Your task to perform on an android device: turn on data saver in the chrome app Image 0: 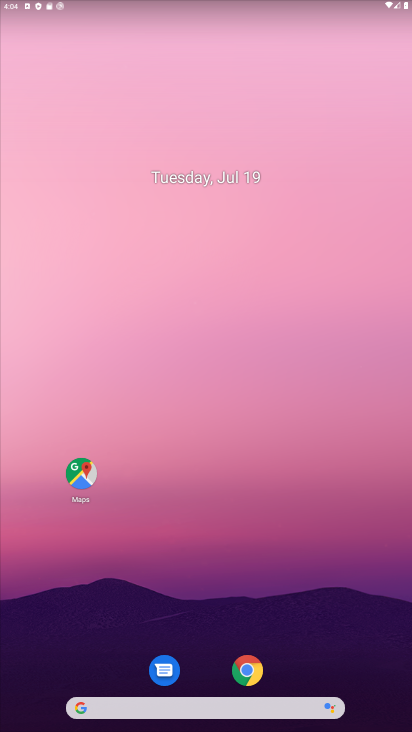
Step 0: drag from (274, 715) to (293, 125)
Your task to perform on an android device: turn on data saver in the chrome app Image 1: 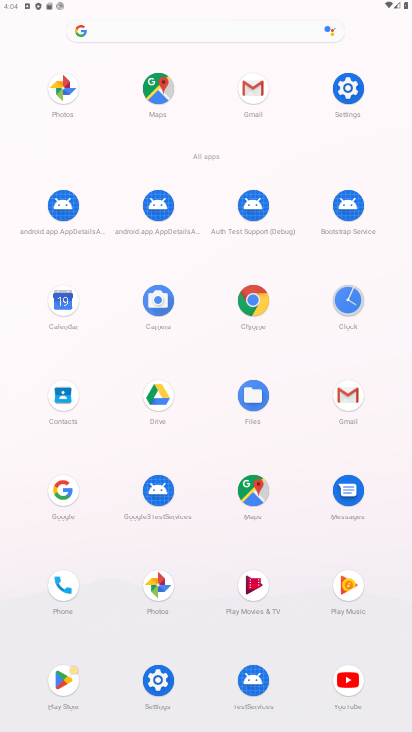
Step 1: click (262, 306)
Your task to perform on an android device: turn on data saver in the chrome app Image 2: 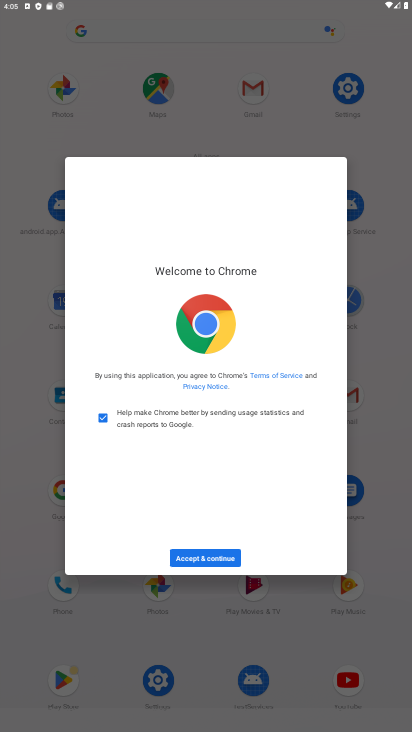
Step 2: click (206, 551)
Your task to perform on an android device: turn on data saver in the chrome app Image 3: 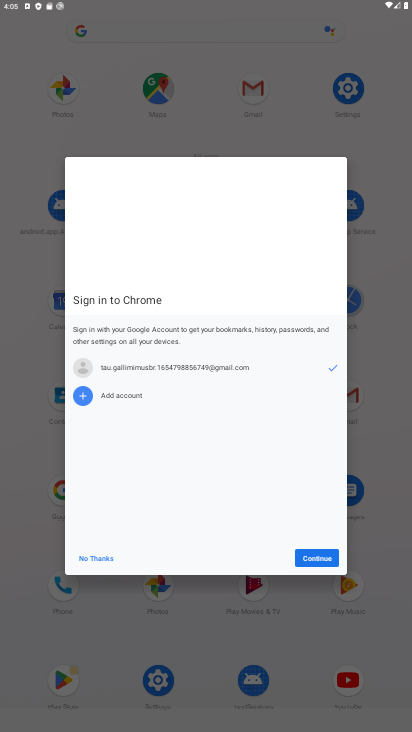
Step 3: click (104, 557)
Your task to perform on an android device: turn on data saver in the chrome app Image 4: 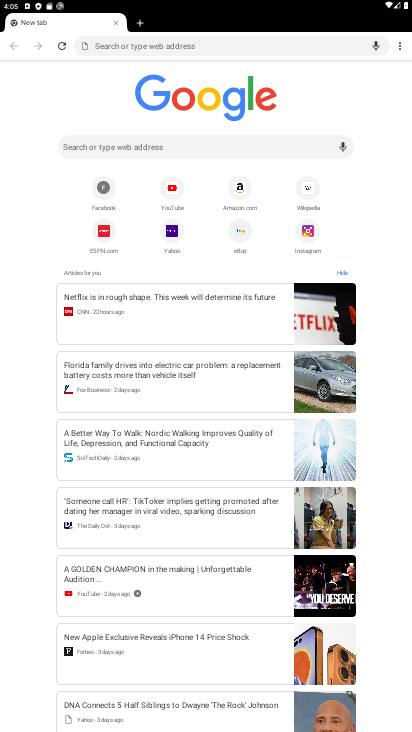
Step 4: drag from (398, 44) to (328, 210)
Your task to perform on an android device: turn on data saver in the chrome app Image 5: 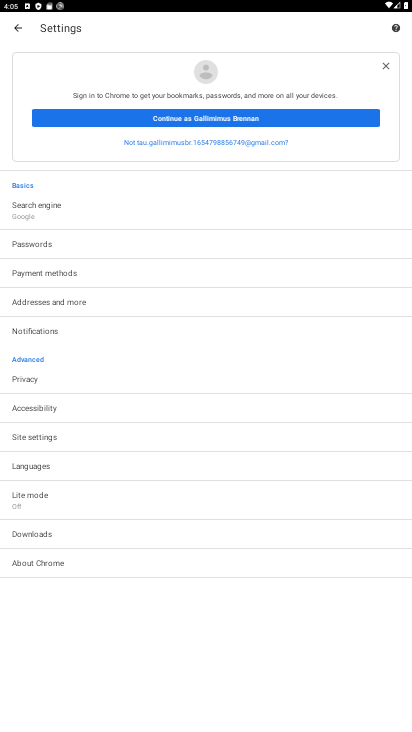
Step 5: click (46, 495)
Your task to perform on an android device: turn on data saver in the chrome app Image 6: 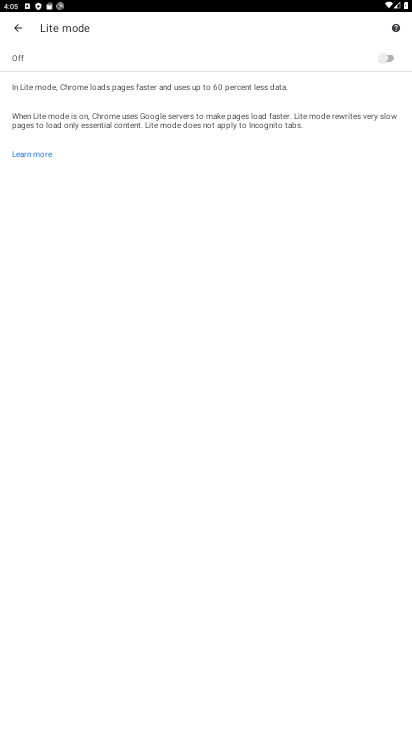
Step 6: click (387, 54)
Your task to perform on an android device: turn on data saver in the chrome app Image 7: 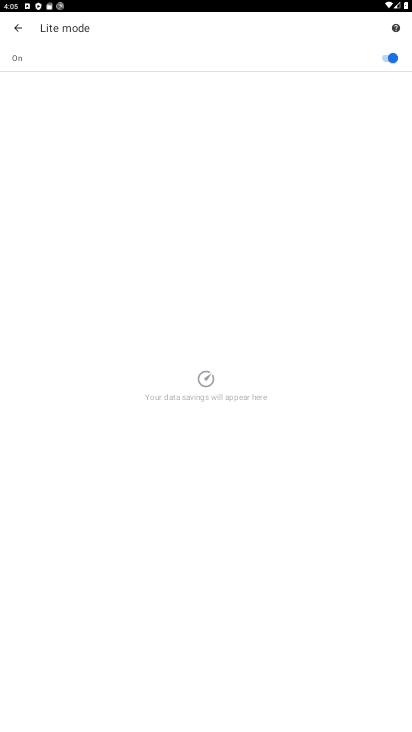
Step 7: task complete